Your task to perform on an android device: add a contact Image 0: 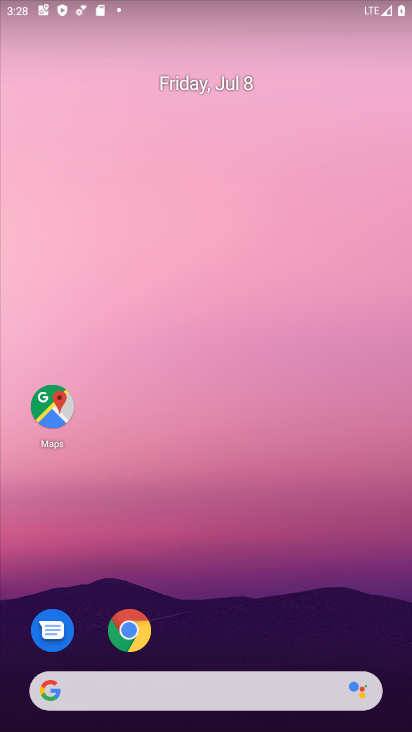
Step 0: drag from (227, 638) to (235, 74)
Your task to perform on an android device: add a contact Image 1: 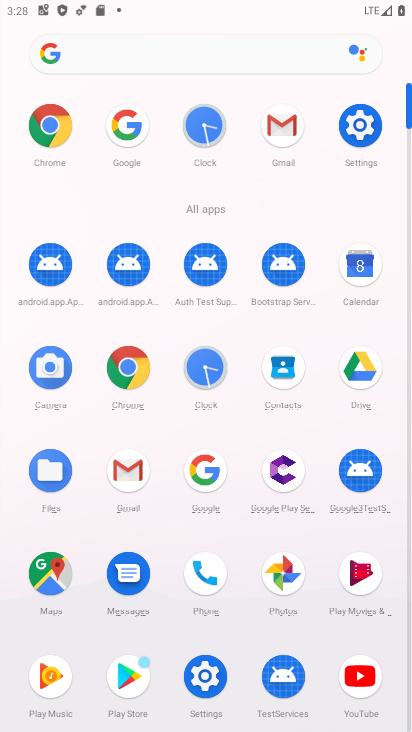
Step 1: click (284, 369)
Your task to perform on an android device: add a contact Image 2: 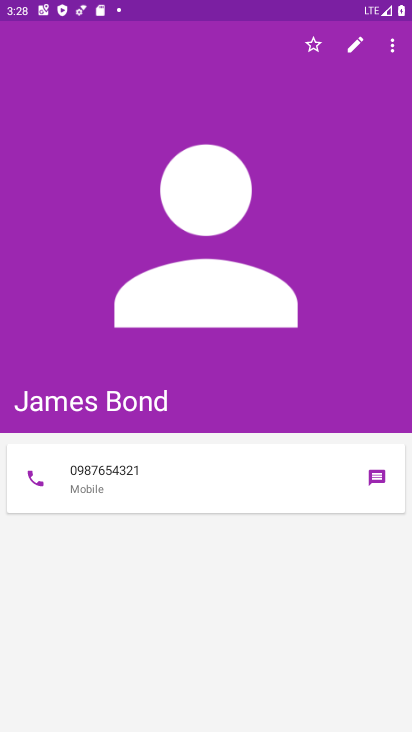
Step 2: press back button
Your task to perform on an android device: add a contact Image 3: 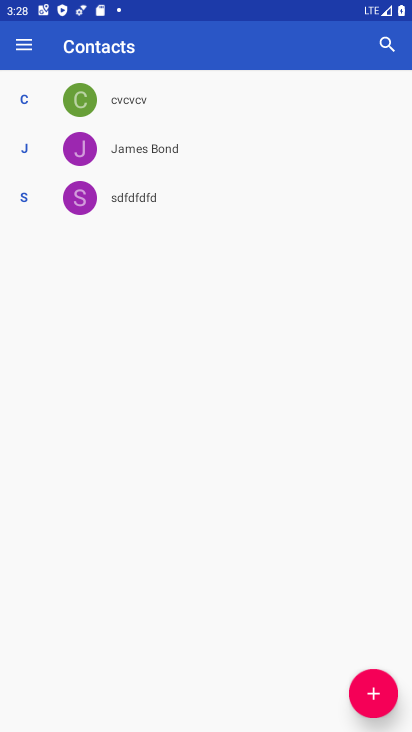
Step 3: click (369, 693)
Your task to perform on an android device: add a contact Image 4: 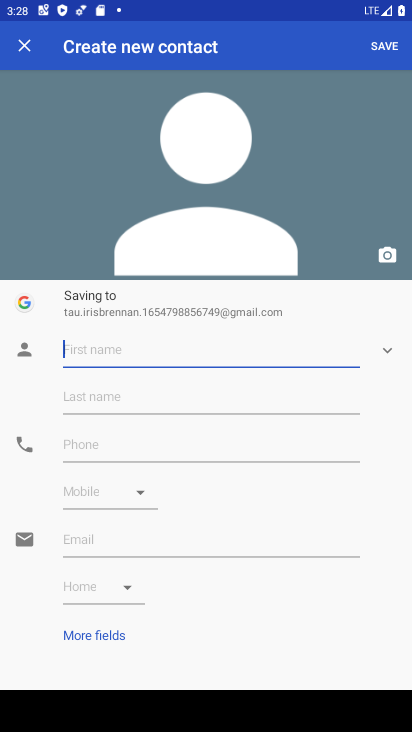
Step 4: click (169, 342)
Your task to perform on an android device: add a contact Image 5: 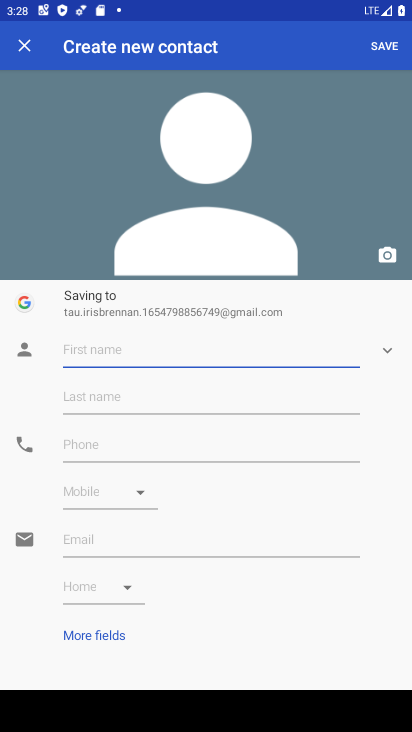
Step 5: type "stuart"
Your task to perform on an android device: add a contact Image 6: 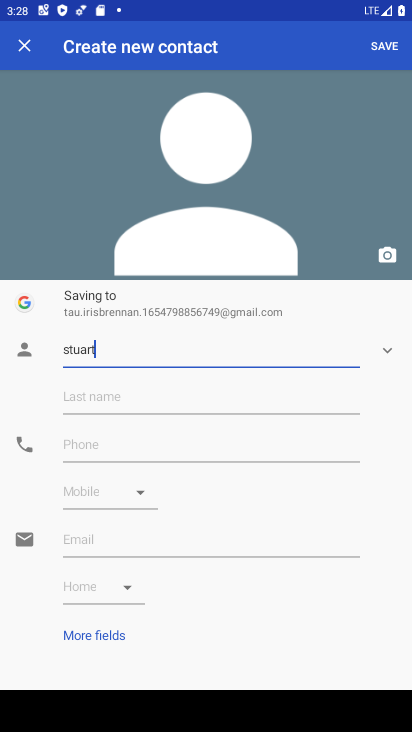
Step 6: click (157, 424)
Your task to perform on an android device: add a contact Image 7: 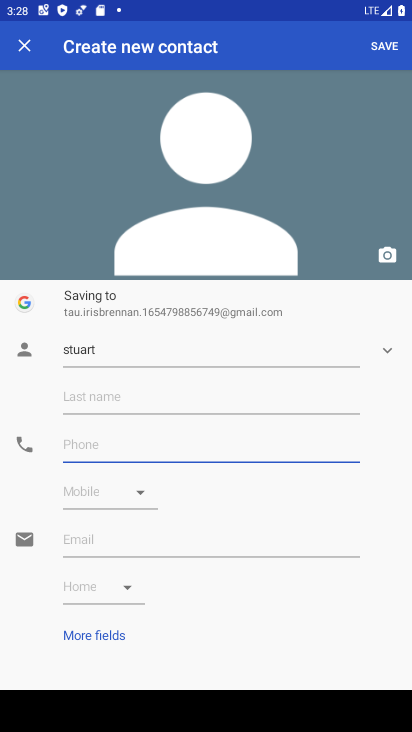
Step 7: click (164, 404)
Your task to perform on an android device: add a contact Image 8: 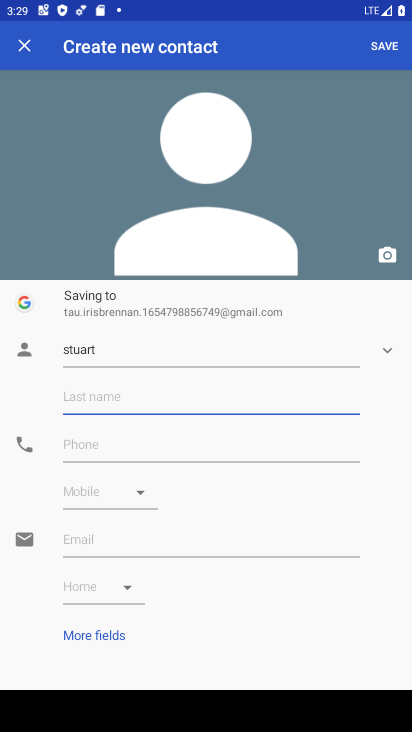
Step 8: type "Rojar"
Your task to perform on an android device: add a contact Image 9: 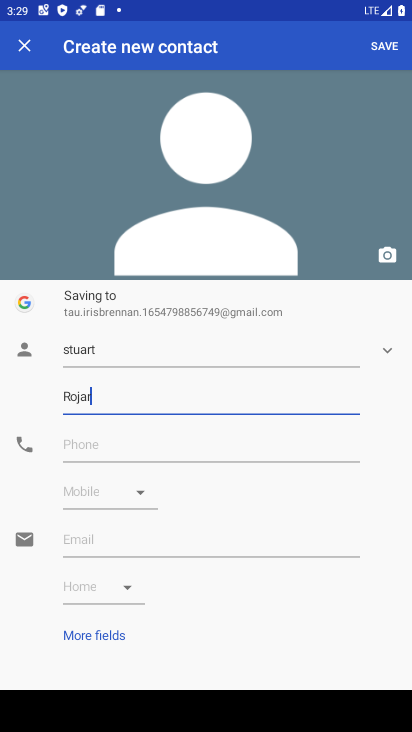
Step 9: click (191, 437)
Your task to perform on an android device: add a contact Image 10: 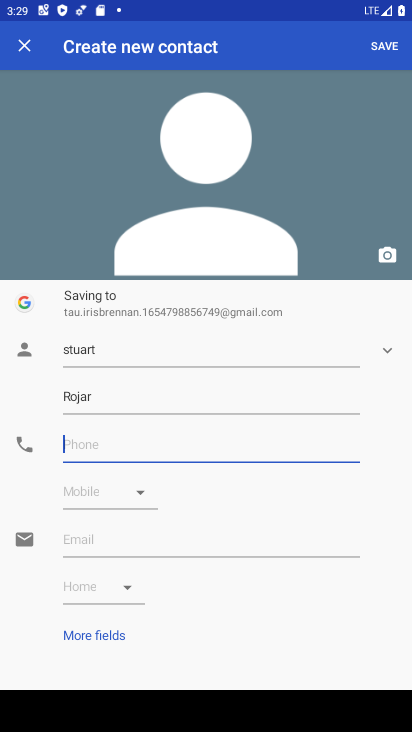
Step 10: type "09876543451"
Your task to perform on an android device: add a contact Image 11: 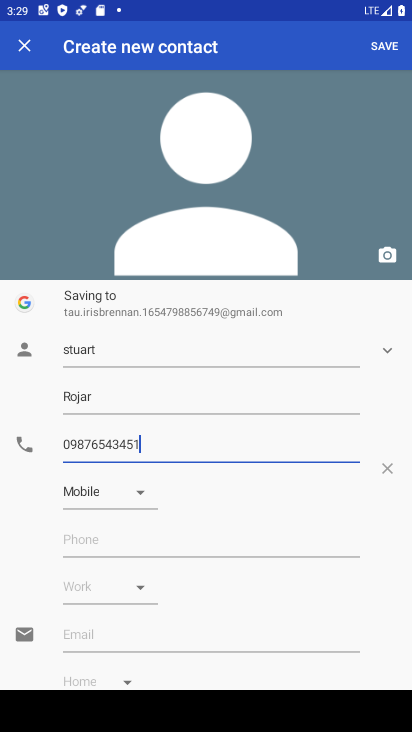
Step 11: click (381, 50)
Your task to perform on an android device: add a contact Image 12: 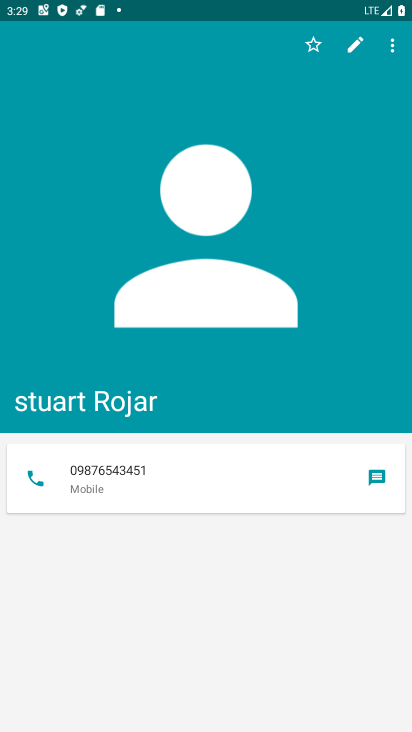
Step 12: task complete